Your task to perform on an android device: Go to settings Image 0: 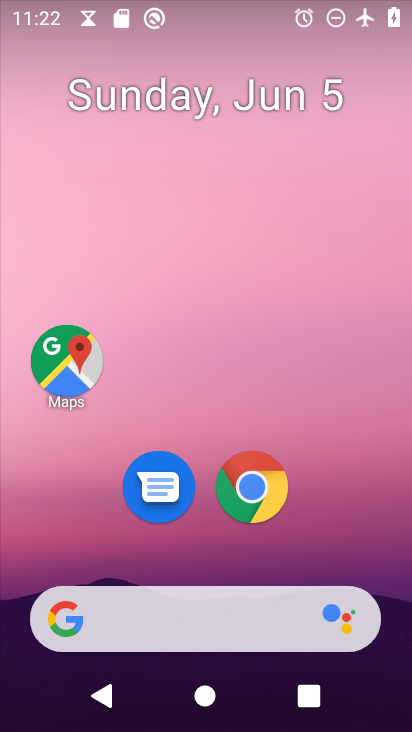
Step 0: drag from (316, 560) to (263, 285)
Your task to perform on an android device: Go to settings Image 1: 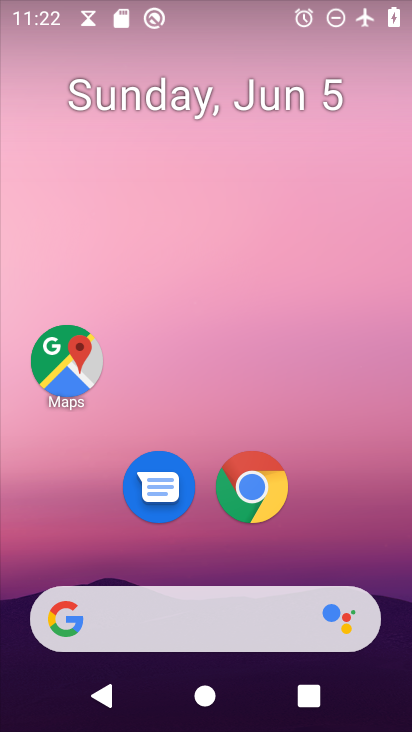
Step 1: drag from (293, 517) to (258, 273)
Your task to perform on an android device: Go to settings Image 2: 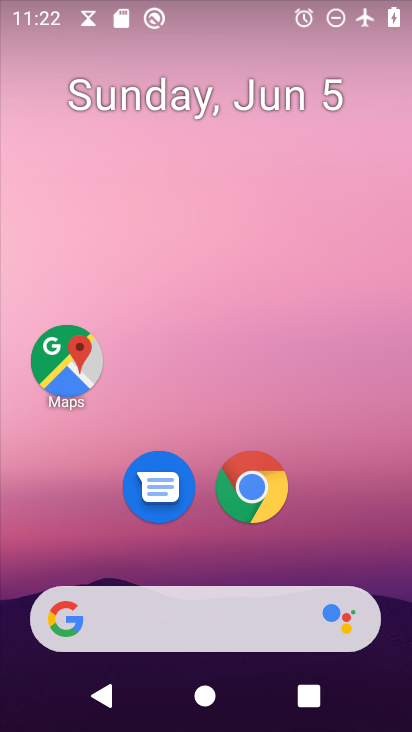
Step 2: drag from (259, 554) to (223, 222)
Your task to perform on an android device: Go to settings Image 3: 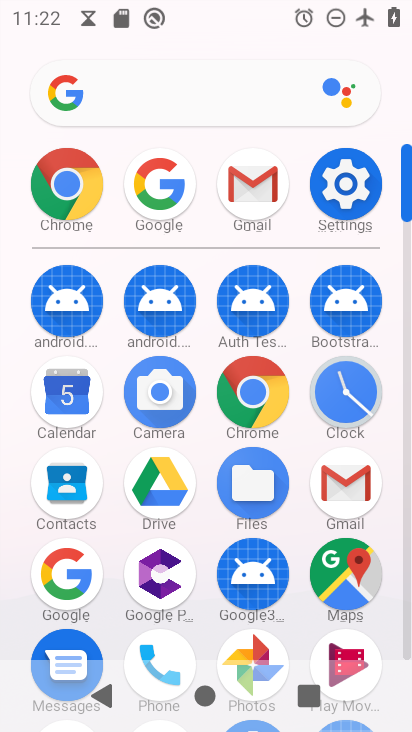
Step 3: click (336, 174)
Your task to perform on an android device: Go to settings Image 4: 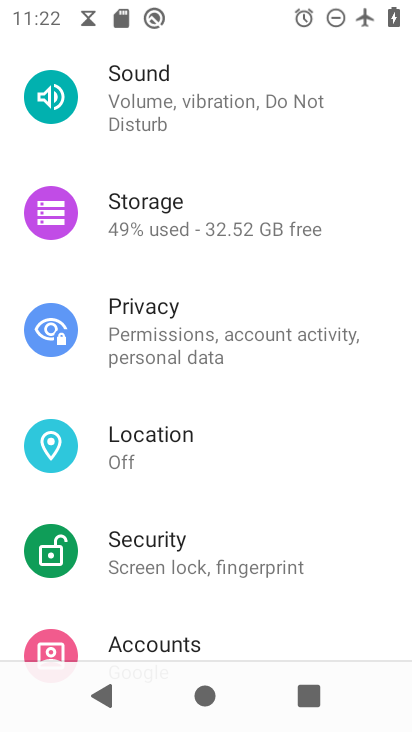
Step 4: task complete